Your task to perform on an android device: turn on wifi Image 0: 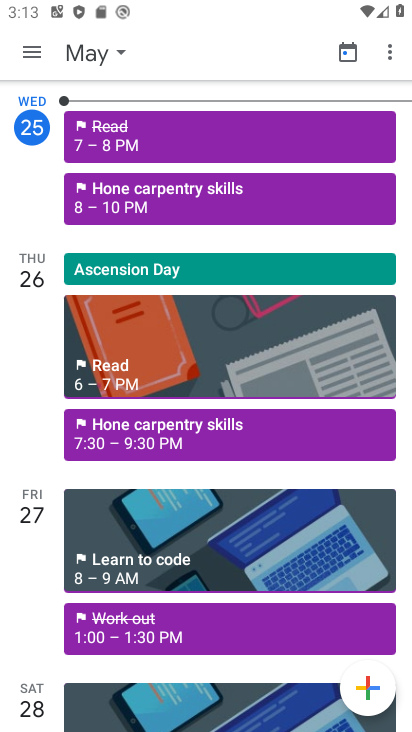
Step 0: press back button
Your task to perform on an android device: turn on wifi Image 1: 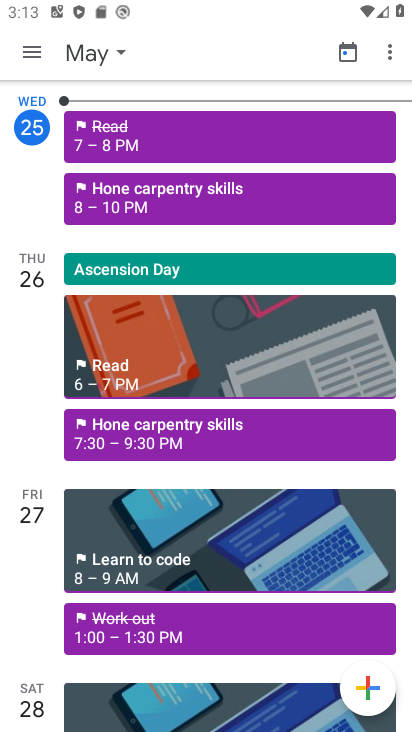
Step 1: press back button
Your task to perform on an android device: turn on wifi Image 2: 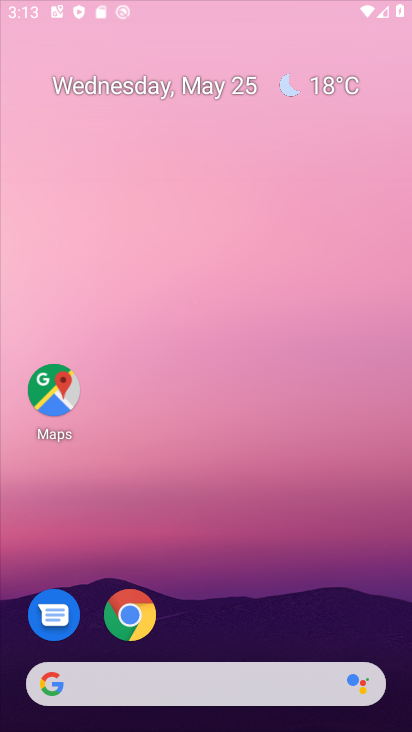
Step 2: press back button
Your task to perform on an android device: turn on wifi Image 3: 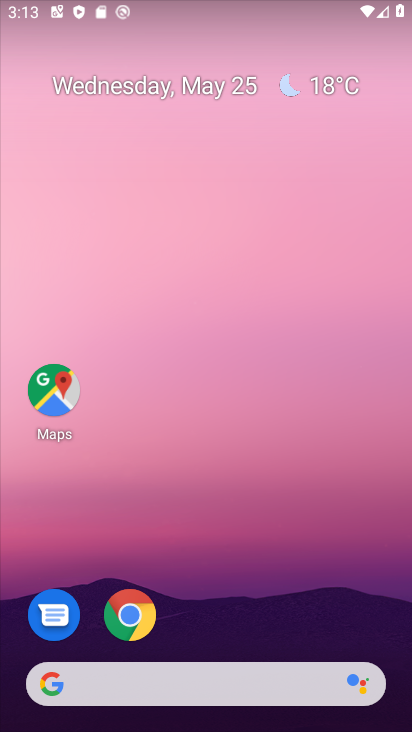
Step 3: press back button
Your task to perform on an android device: turn on wifi Image 4: 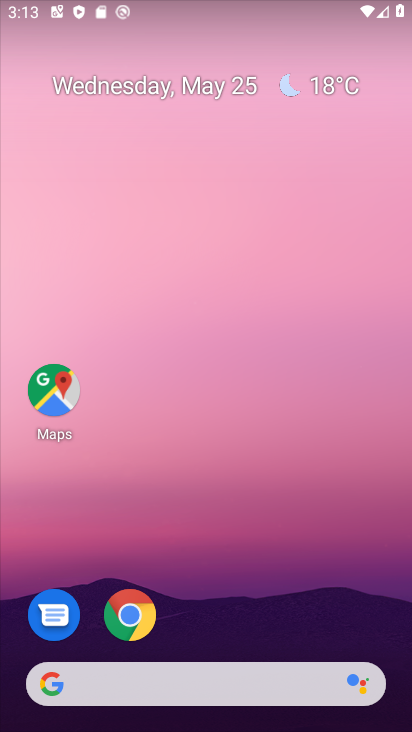
Step 4: drag from (202, 443) to (99, 47)
Your task to perform on an android device: turn on wifi Image 5: 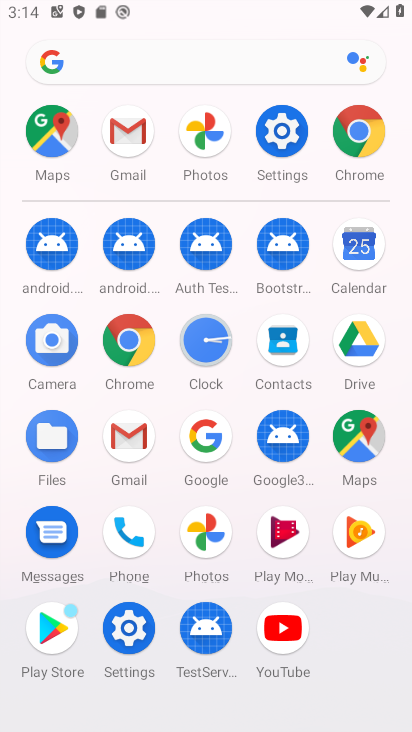
Step 5: click (281, 137)
Your task to perform on an android device: turn on wifi Image 6: 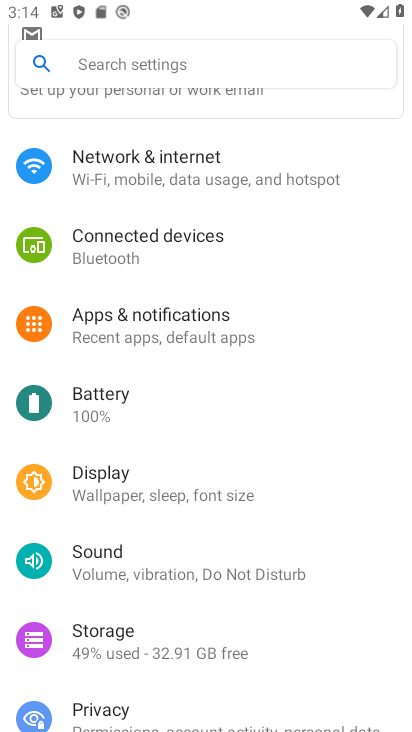
Step 6: click (146, 163)
Your task to perform on an android device: turn on wifi Image 7: 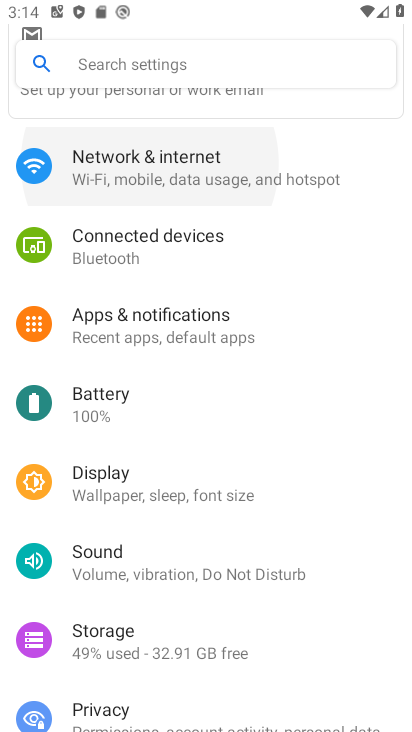
Step 7: click (146, 163)
Your task to perform on an android device: turn on wifi Image 8: 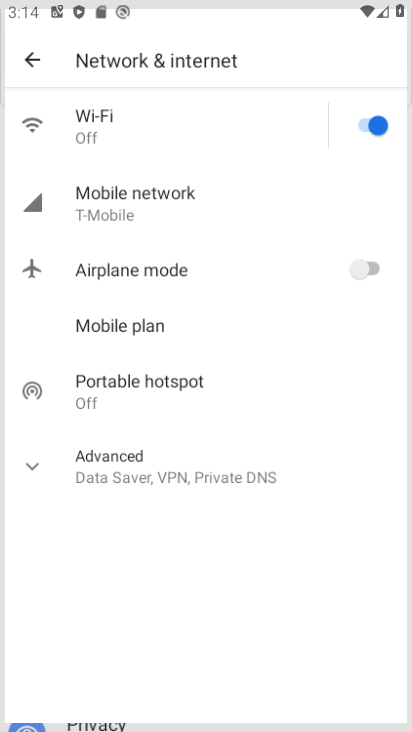
Step 8: click (132, 168)
Your task to perform on an android device: turn on wifi Image 9: 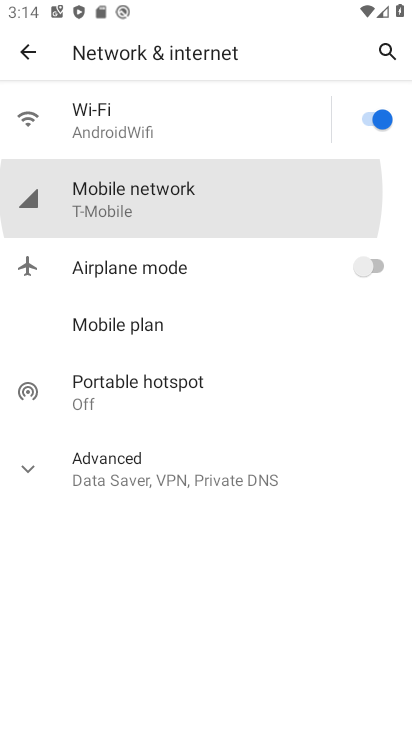
Step 9: click (123, 160)
Your task to perform on an android device: turn on wifi Image 10: 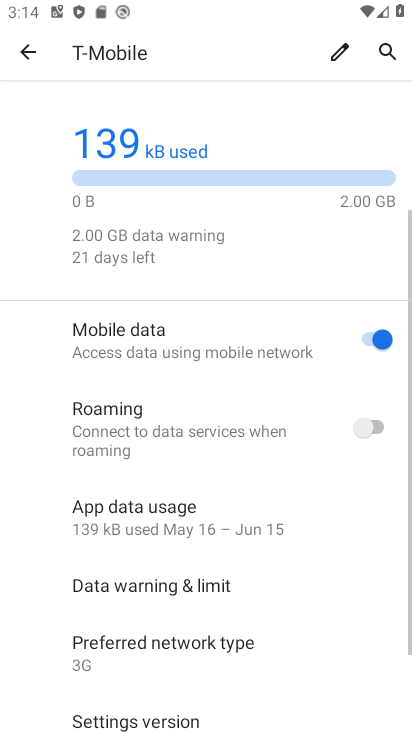
Step 10: click (21, 50)
Your task to perform on an android device: turn on wifi Image 11: 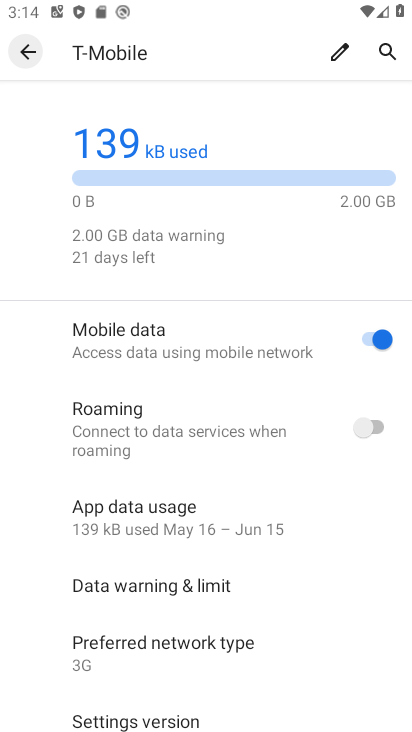
Step 11: click (22, 49)
Your task to perform on an android device: turn on wifi Image 12: 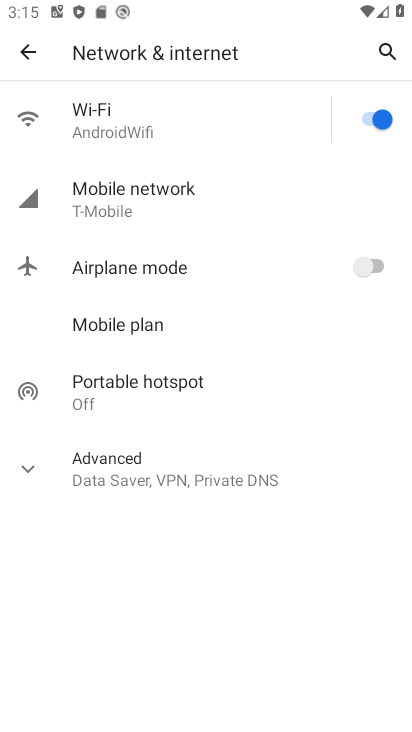
Step 12: task complete